Your task to perform on an android device: open chrome privacy settings Image 0: 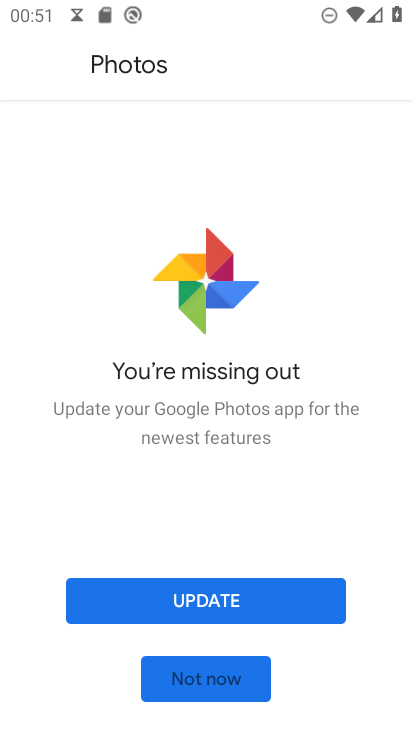
Step 0: press home button
Your task to perform on an android device: open chrome privacy settings Image 1: 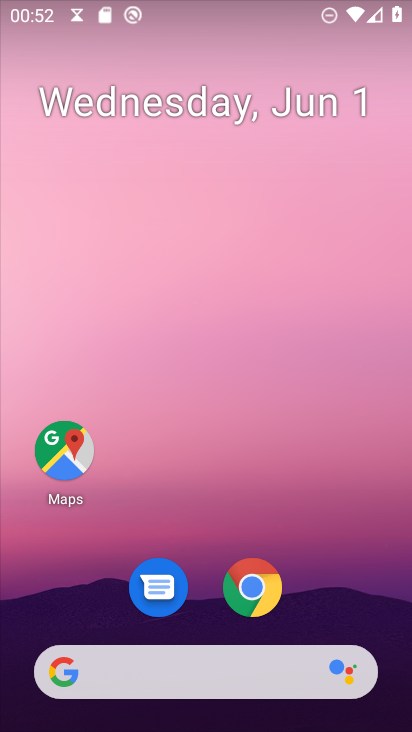
Step 1: click (254, 587)
Your task to perform on an android device: open chrome privacy settings Image 2: 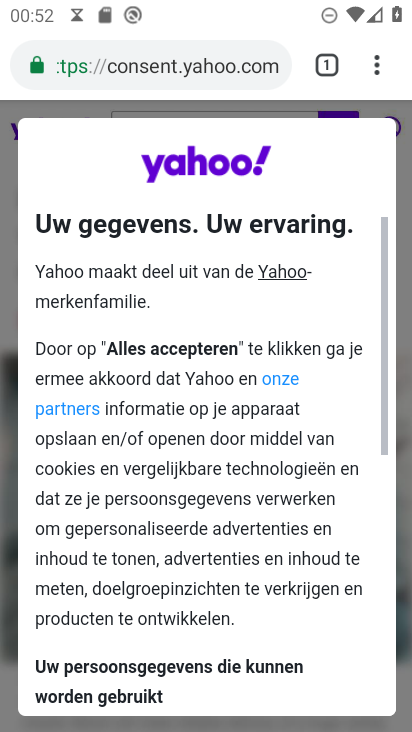
Step 2: click (378, 50)
Your task to perform on an android device: open chrome privacy settings Image 3: 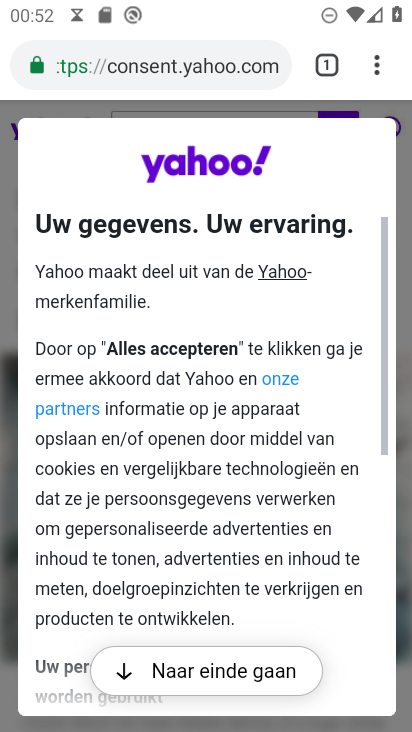
Step 3: click (382, 55)
Your task to perform on an android device: open chrome privacy settings Image 4: 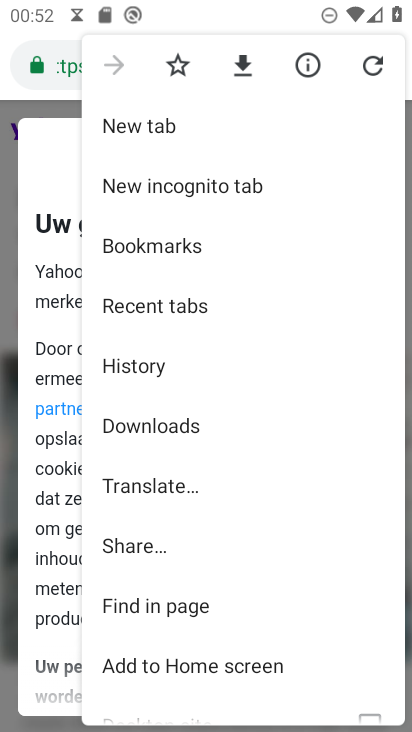
Step 4: drag from (182, 661) to (163, 154)
Your task to perform on an android device: open chrome privacy settings Image 5: 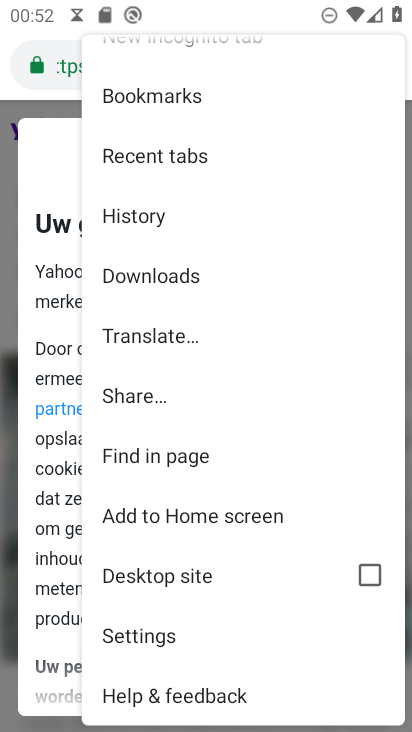
Step 5: click (143, 633)
Your task to perform on an android device: open chrome privacy settings Image 6: 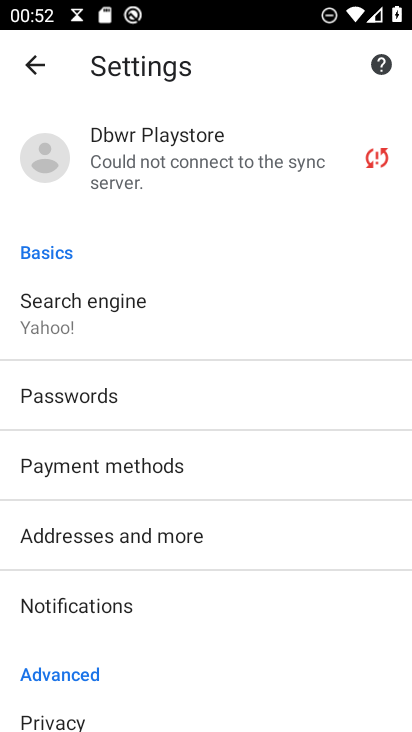
Step 6: drag from (138, 652) to (129, 281)
Your task to perform on an android device: open chrome privacy settings Image 7: 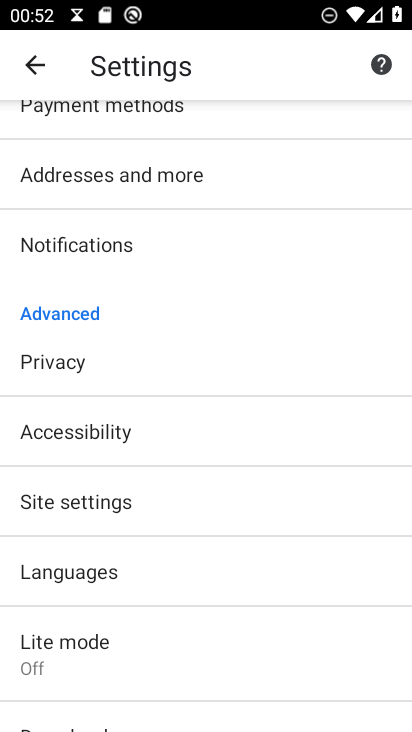
Step 7: click (107, 367)
Your task to perform on an android device: open chrome privacy settings Image 8: 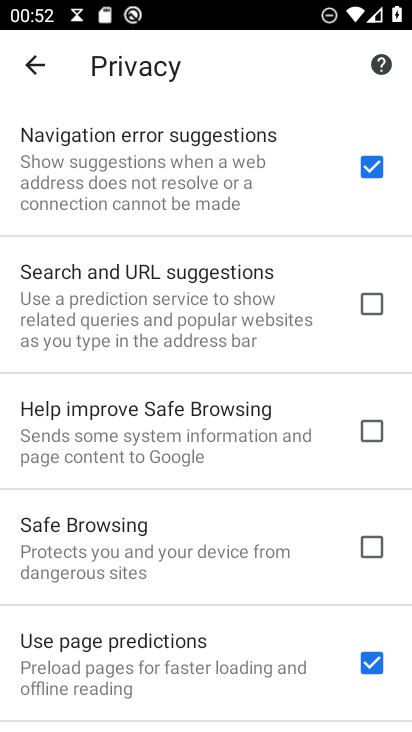
Step 8: task complete